Your task to perform on an android device: Search for pizza restaurants on Maps Image 0: 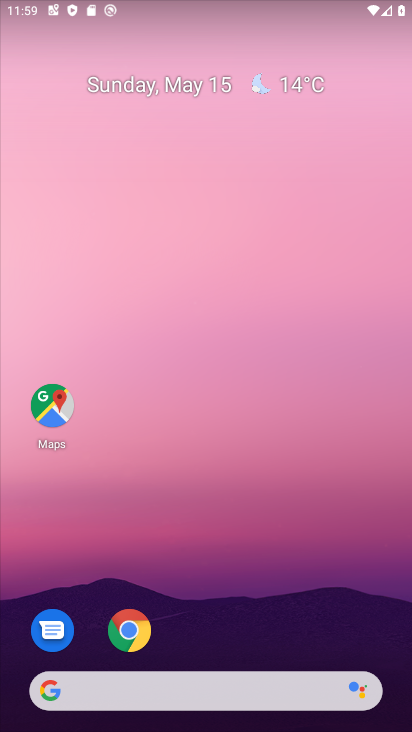
Step 0: drag from (254, 647) to (225, 3)
Your task to perform on an android device: Search for pizza restaurants on Maps Image 1: 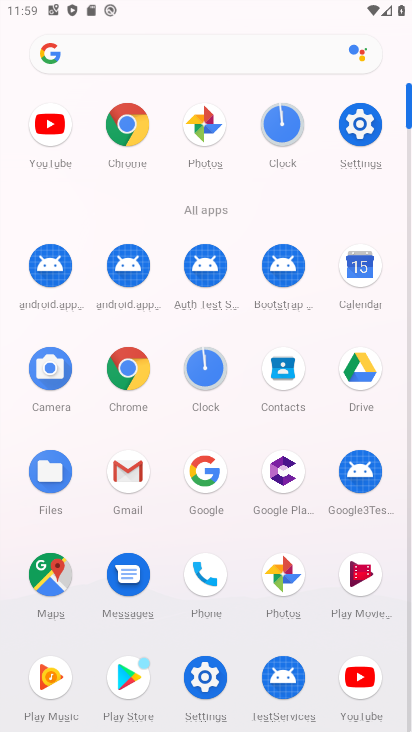
Step 1: click (55, 570)
Your task to perform on an android device: Search for pizza restaurants on Maps Image 2: 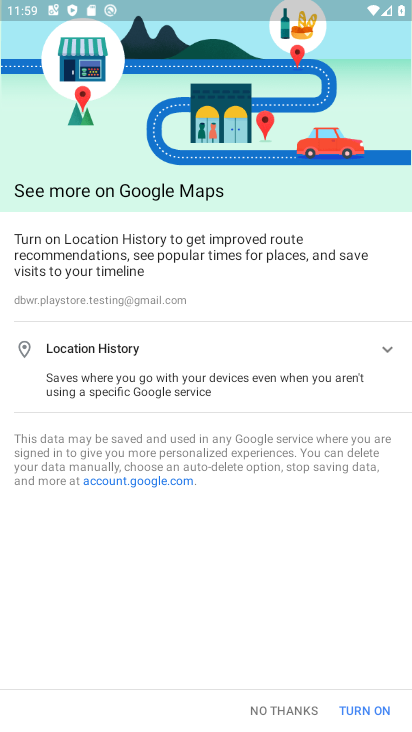
Step 2: click (298, 704)
Your task to perform on an android device: Search for pizza restaurants on Maps Image 3: 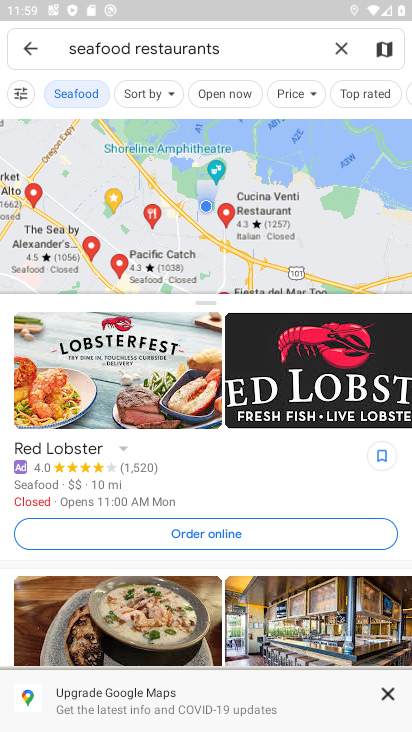
Step 3: click (342, 51)
Your task to perform on an android device: Search for pizza restaurants on Maps Image 4: 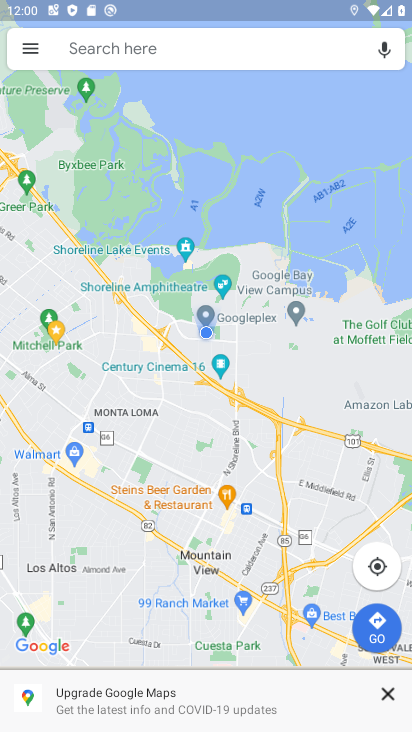
Step 4: click (218, 53)
Your task to perform on an android device: Search for pizza restaurants on Maps Image 5: 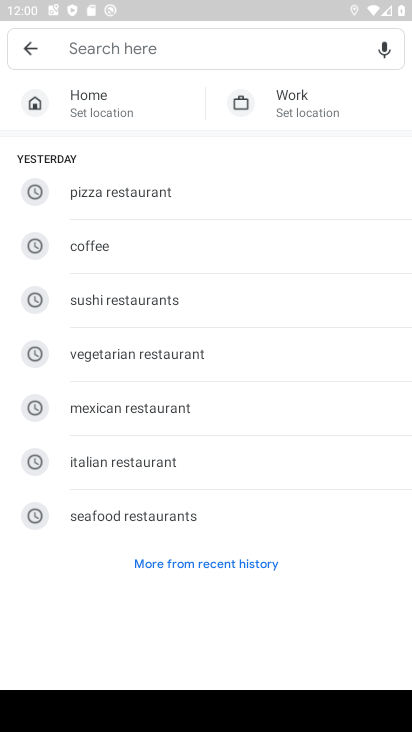
Step 5: click (190, 192)
Your task to perform on an android device: Search for pizza restaurants on Maps Image 6: 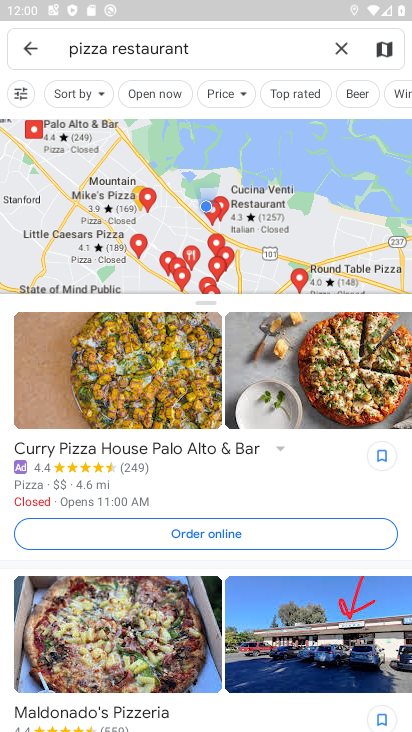
Step 6: task complete